Your task to perform on an android device: turn on location history Image 0: 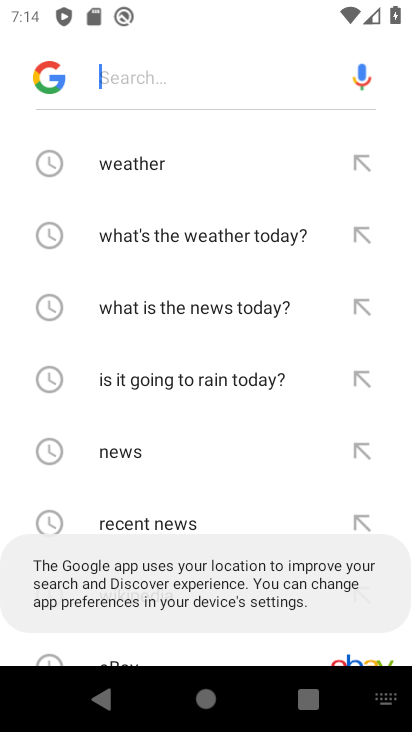
Step 0: press home button
Your task to perform on an android device: turn on location history Image 1: 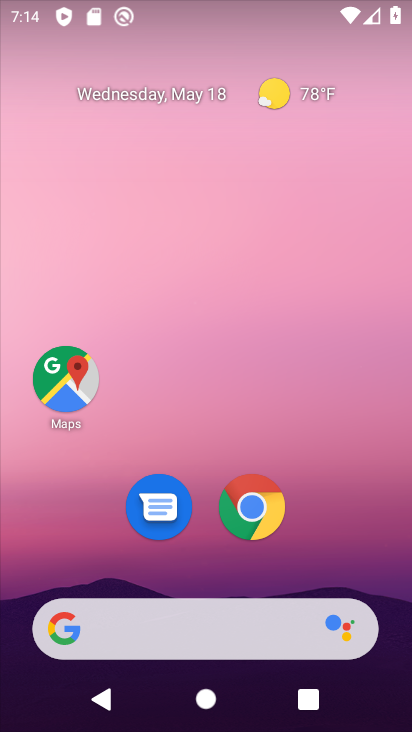
Step 1: drag from (292, 643) to (294, 248)
Your task to perform on an android device: turn on location history Image 2: 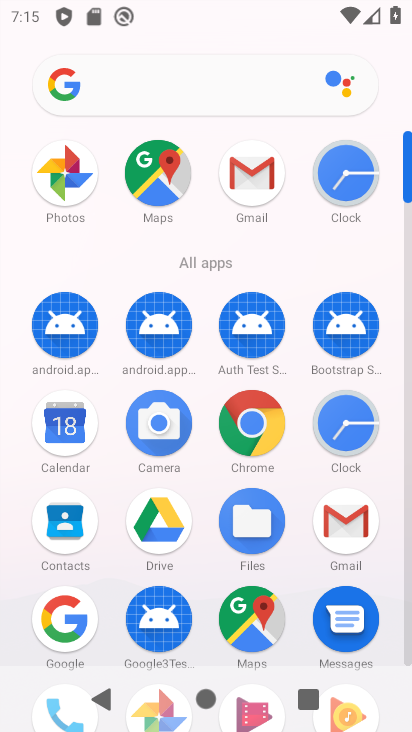
Step 2: drag from (114, 563) to (115, 286)
Your task to perform on an android device: turn on location history Image 3: 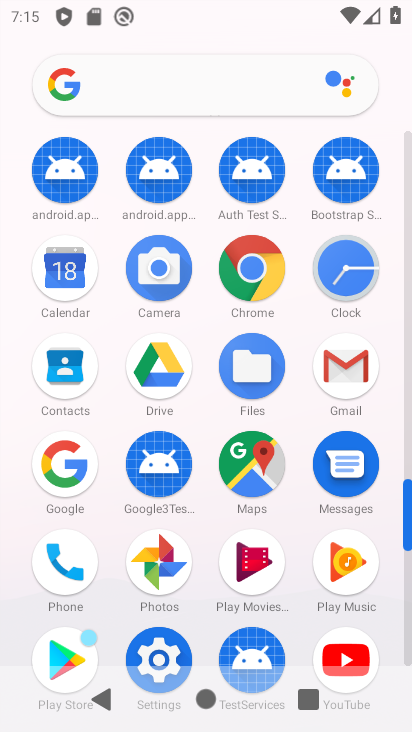
Step 3: click (155, 639)
Your task to perform on an android device: turn on location history Image 4: 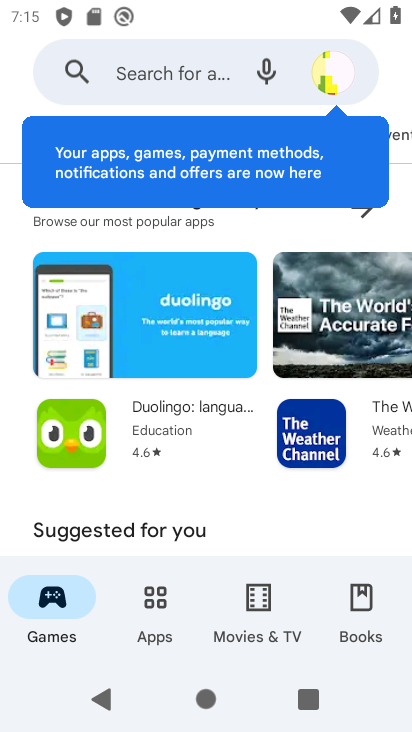
Step 4: press home button
Your task to perform on an android device: turn on location history Image 5: 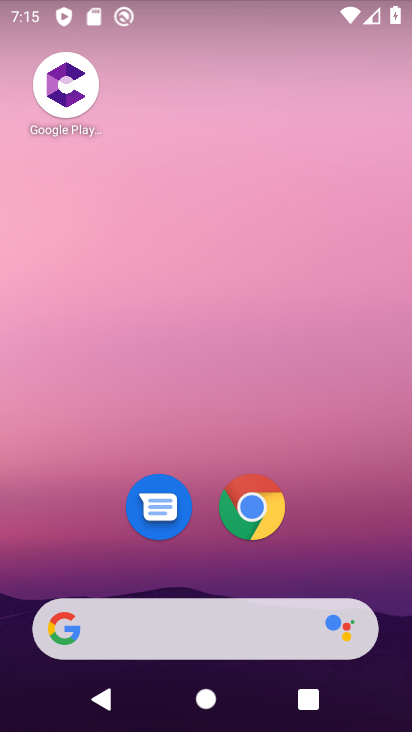
Step 5: drag from (236, 655) to (347, 71)
Your task to perform on an android device: turn on location history Image 6: 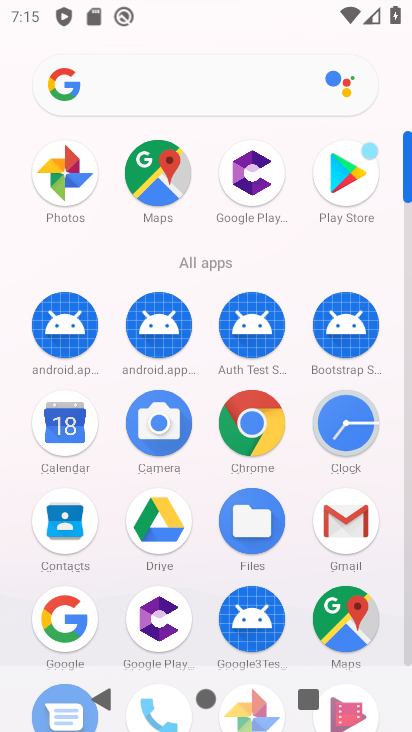
Step 6: drag from (211, 568) to (258, 239)
Your task to perform on an android device: turn on location history Image 7: 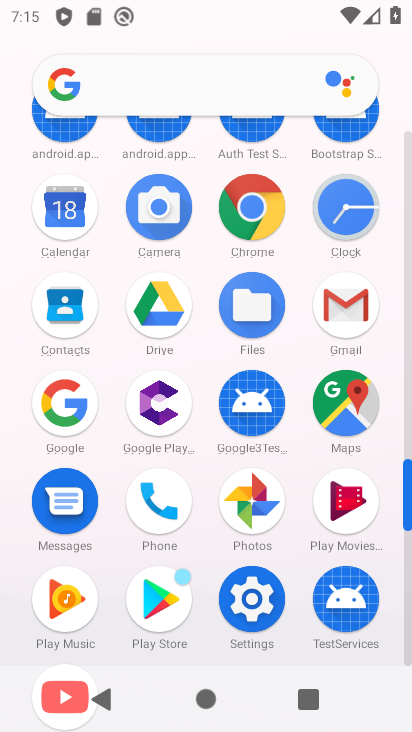
Step 7: click (264, 603)
Your task to perform on an android device: turn on location history Image 8: 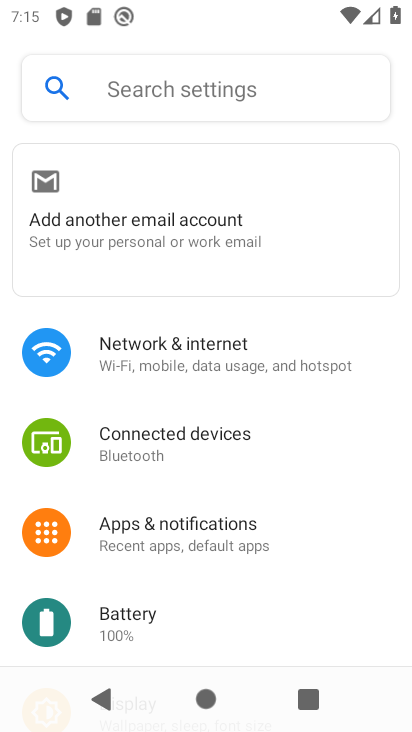
Step 8: click (152, 86)
Your task to perform on an android device: turn on location history Image 9: 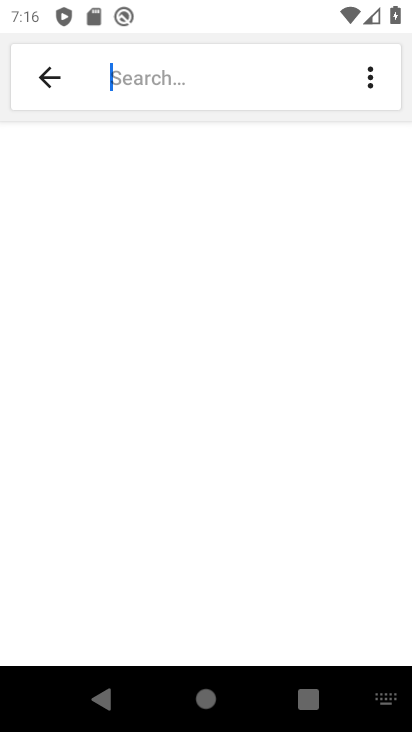
Step 9: click (385, 697)
Your task to perform on an android device: turn on location history Image 10: 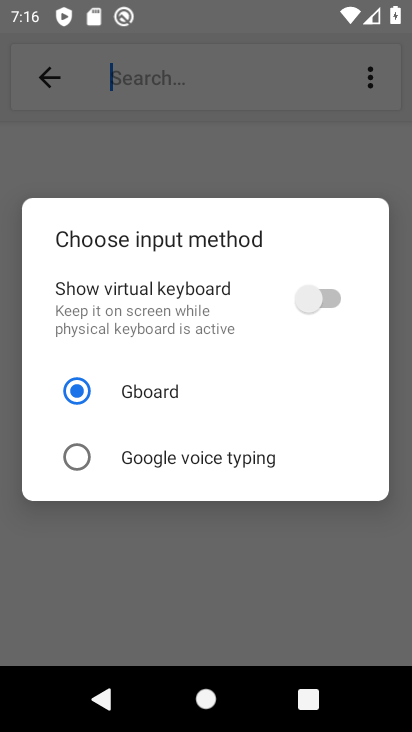
Step 10: click (326, 269)
Your task to perform on an android device: turn on location history Image 11: 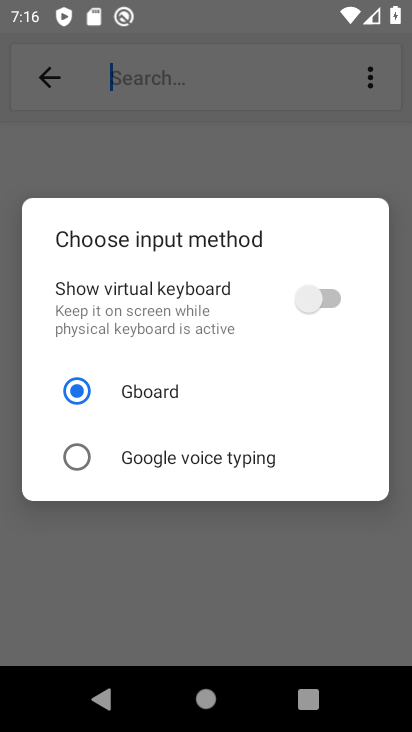
Step 11: click (333, 295)
Your task to perform on an android device: turn on location history Image 12: 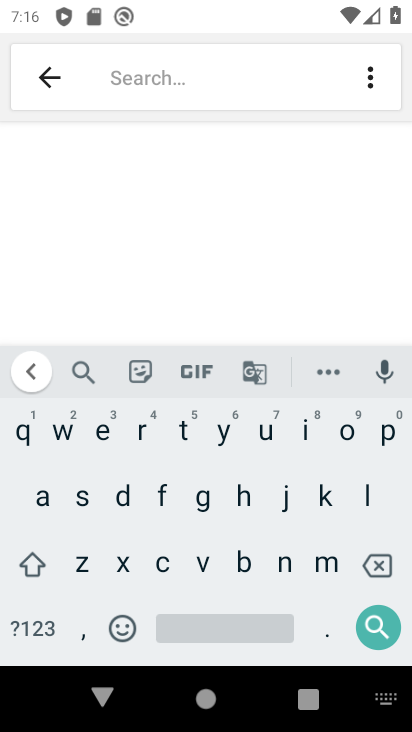
Step 12: click (179, 78)
Your task to perform on an android device: turn on location history Image 13: 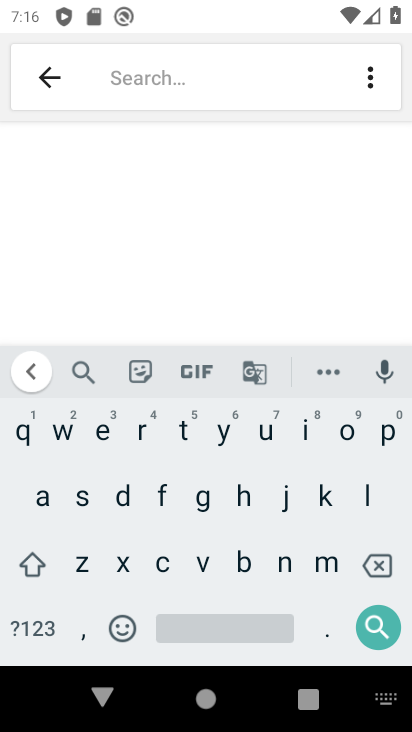
Step 13: click (370, 492)
Your task to perform on an android device: turn on location history Image 14: 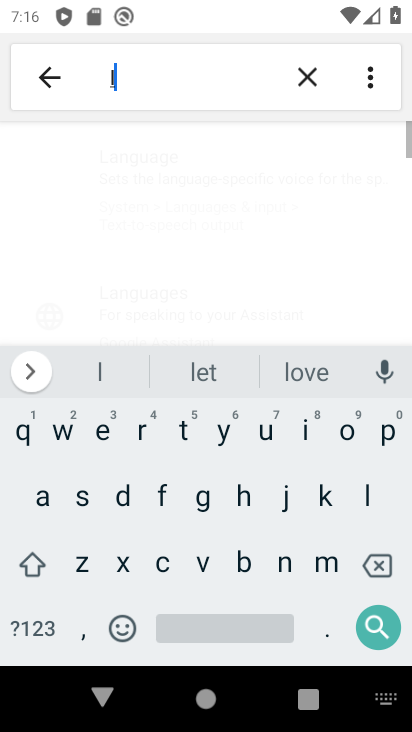
Step 14: click (339, 429)
Your task to perform on an android device: turn on location history Image 15: 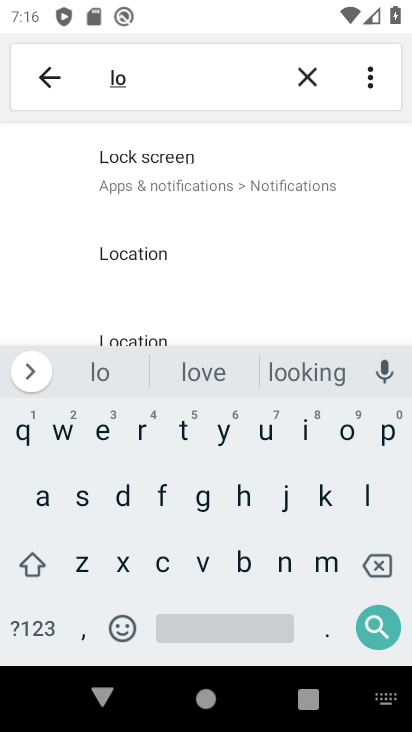
Step 15: click (152, 330)
Your task to perform on an android device: turn on location history Image 16: 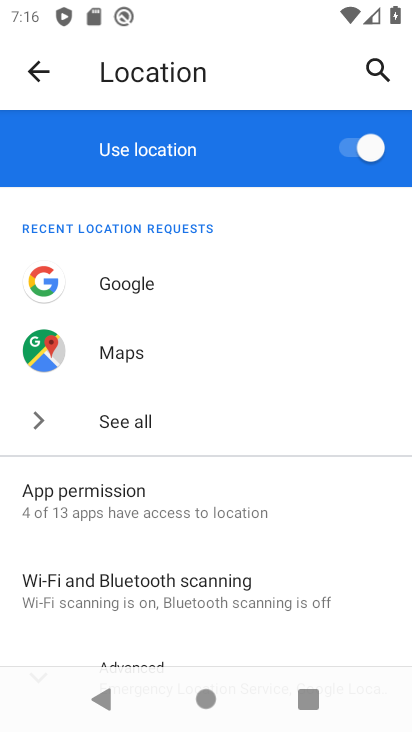
Step 16: drag from (169, 601) to (207, 345)
Your task to perform on an android device: turn on location history Image 17: 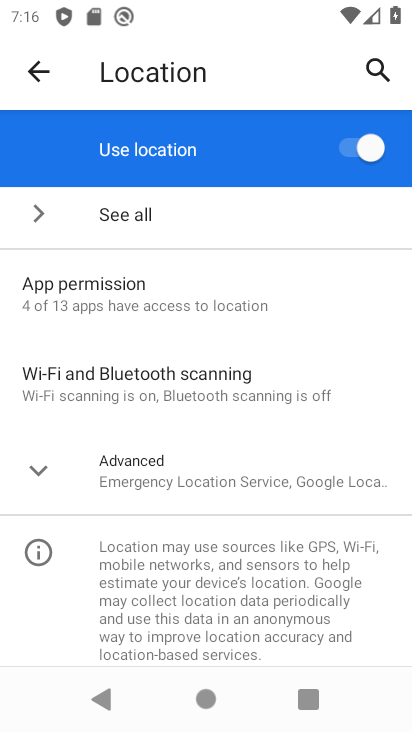
Step 17: click (48, 473)
Your task to perform on an android device: turn on location history Image 18: 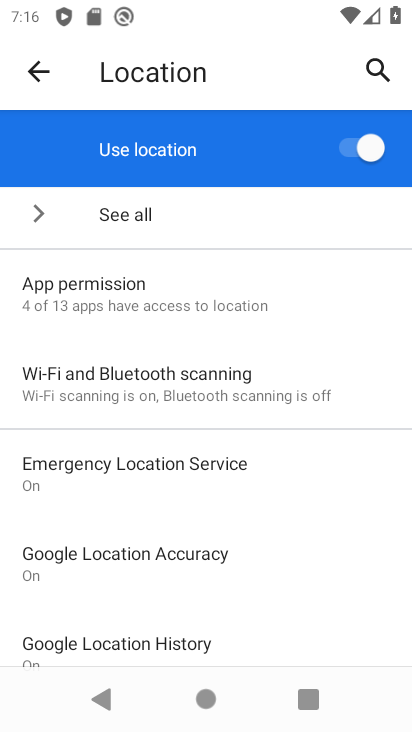
Step 18: click (139, 644)
Your task to perform on an android device: turn on location history Image 19: 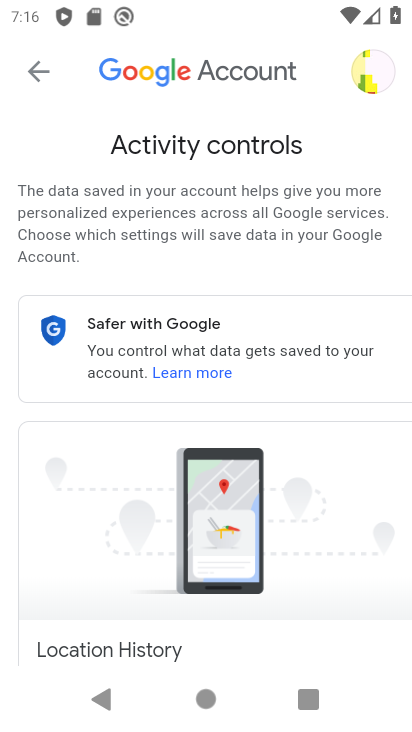
Step 19: task complete